Your task to perform on an android device: turn on the 12-hour format for clock Image 0: 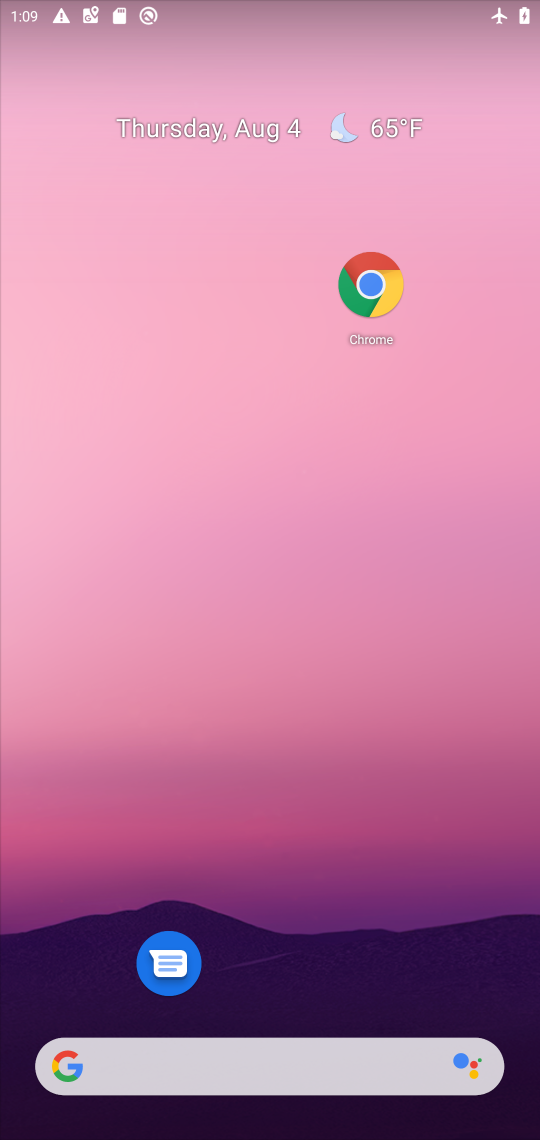
Step 0: drag from (251, 957) to (255, 122)
Your task to perform on an android device: turn on the 12-hour format for clock Image 1: 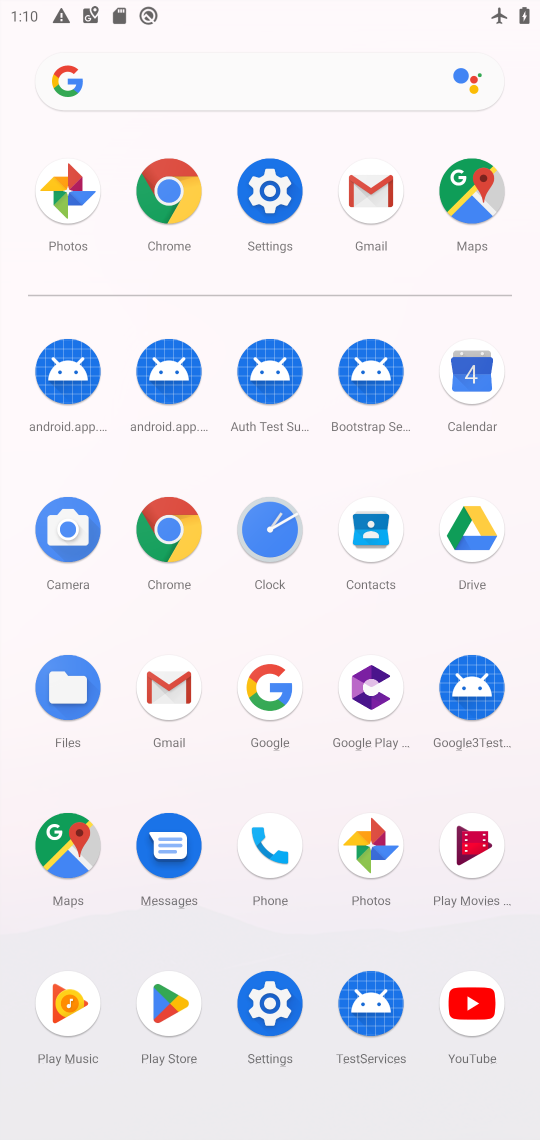
Step 1: click (277, 522)
Your task to perform on an android device: turn on the 12-hour format for clock Image 2: 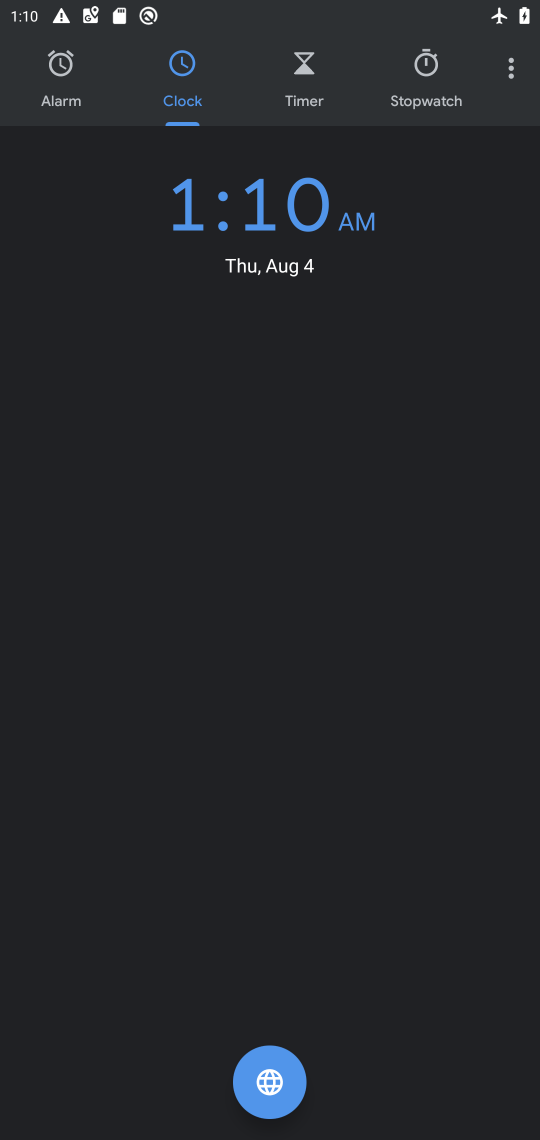
Step 2: click (525, 67)
Your task to perform on an android device: turn on the 12-hour format for clock Image 3: 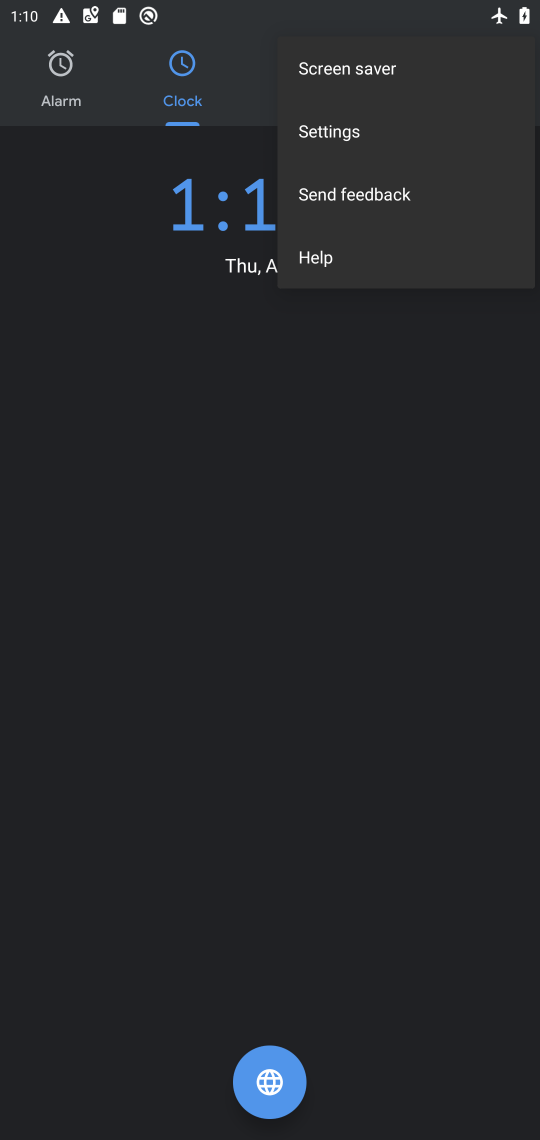
Step 3: click (339, 127)
Your task to perform on an android device: turn on the 12-hour format for clock Image 4: 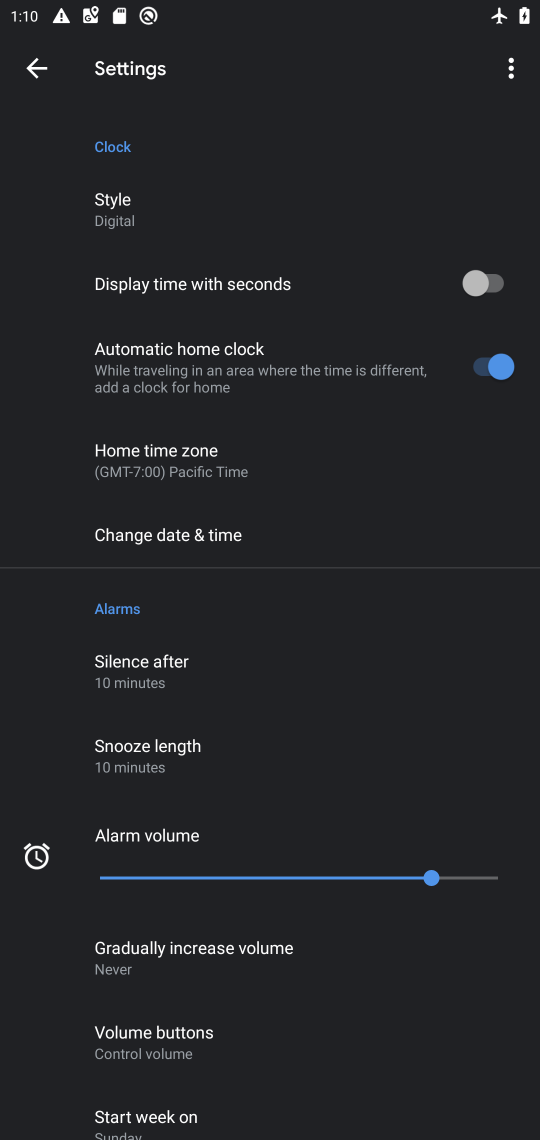
Step 4: click (231, 527)
Your task to perform on an android device: turn on the 12-hour format for clock Image 5: 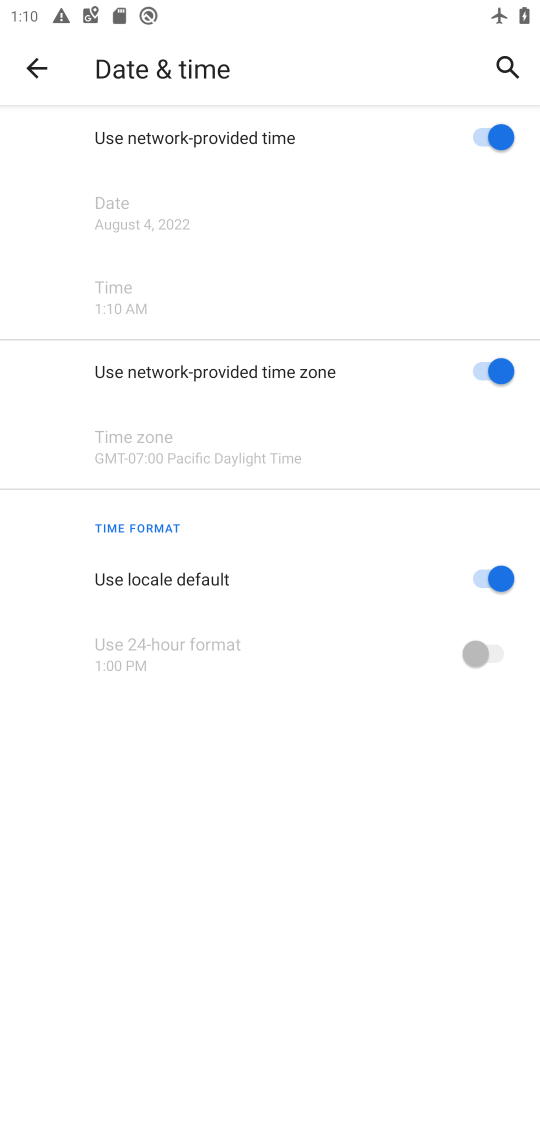
Step 5: click (460, 576)
Your task to perform on an android device: turn on the 12-hour format for clock Image 6: 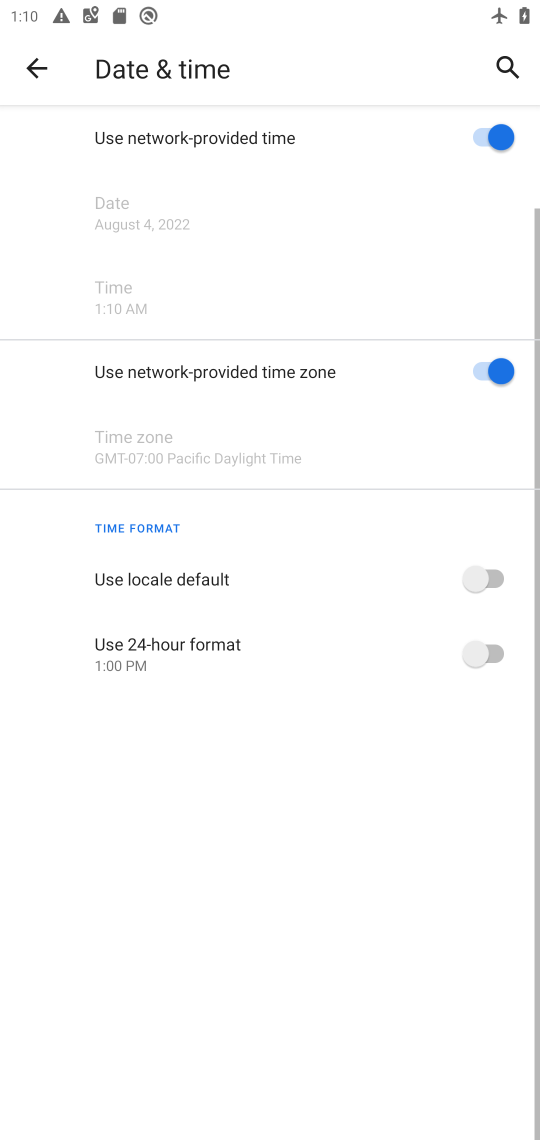
Step 6: click (462, 653)
Your task to perform on an android device: turn on the 12-hour format for clock Image 7: 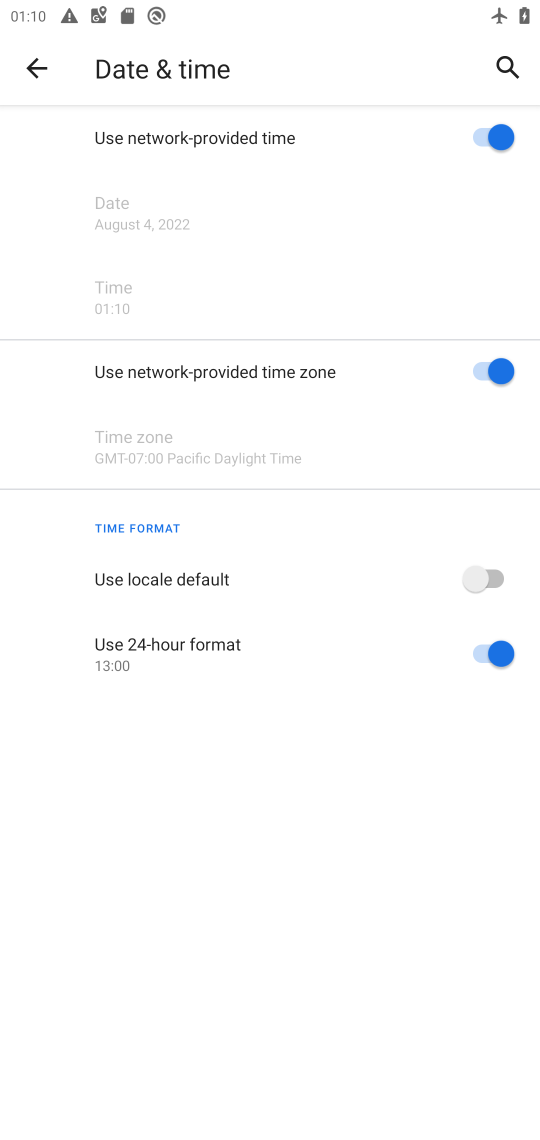
Step 7: task complete